Your task to perform on an android device: check battery use Image 0: 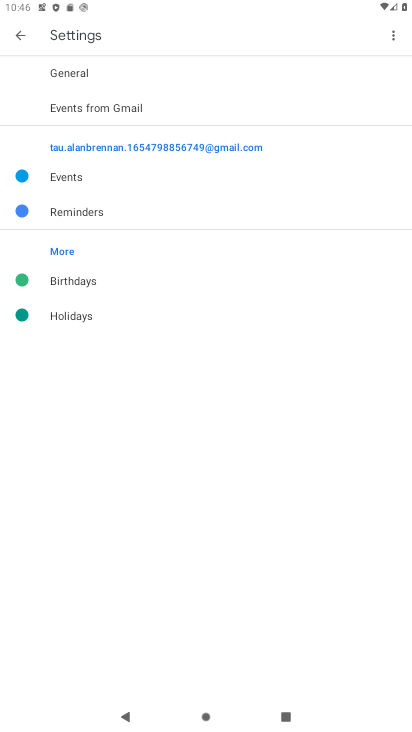
Step 0: press back button
Your task to perform on an android device: check battery use Image 1: 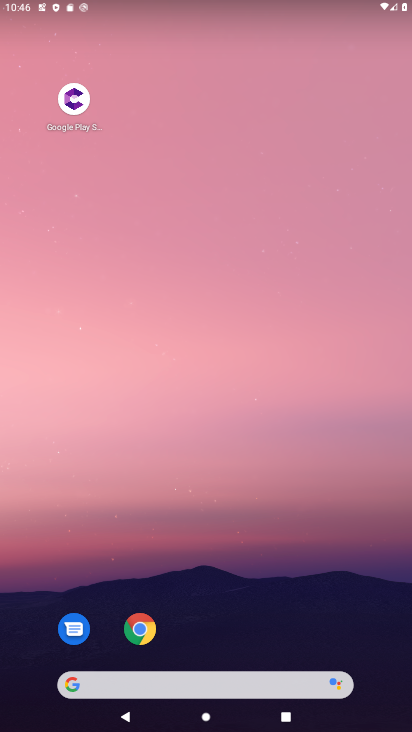
Step 1: drag from (195, 567) to (194, 54)
Your task to perform on an android device: check battery use Image 2: 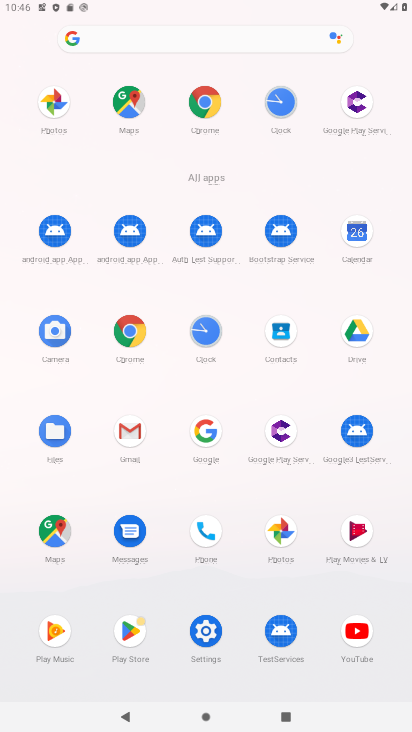
Step 2: click (204, 634)
Your task to perform on an android device: check battery use Image 3: 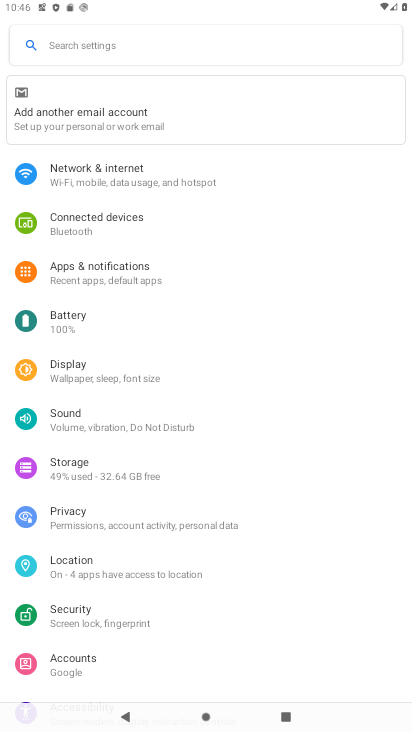
Step 3: click (58, 322)
Your task to perform on an android device: check battery use Image 4: 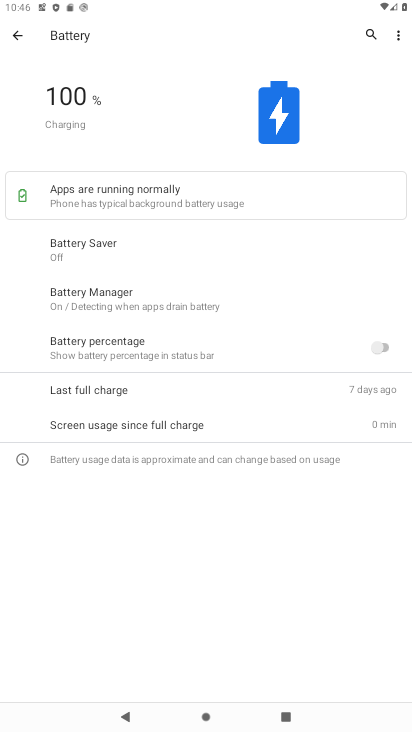
Step 4: task complete